Your task to perform on an android device: add a contact in the contacts app Image 0: 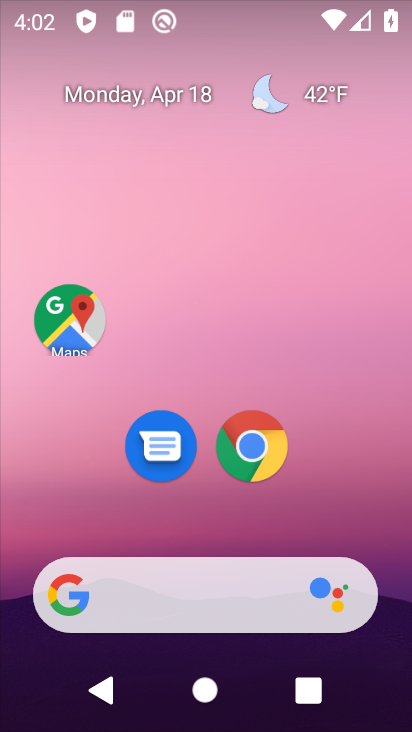
Step 0: drag from (348, 541) to (287, 107)
Your task to perform on an android device: add a contact in the contacts app Image 1: 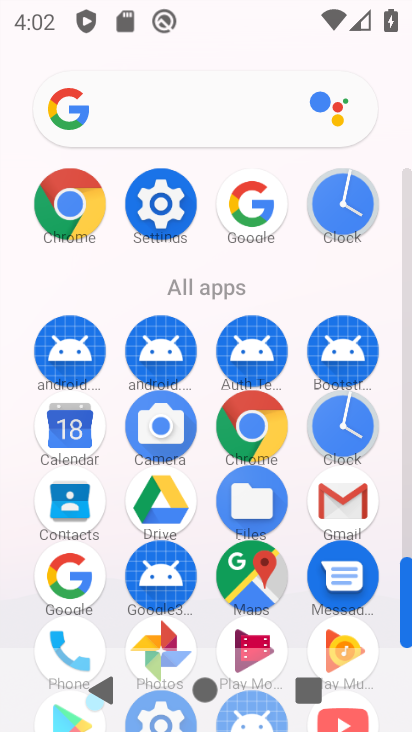
Step 1: click (57, 516)
Your task to perform on an android device: add a contact in the contacts app Image 2: 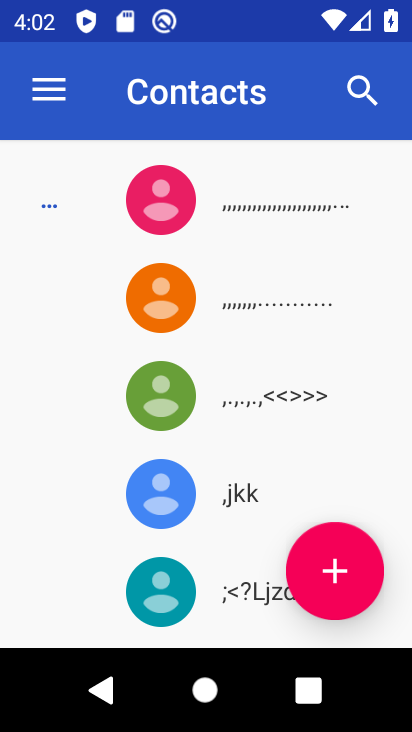
Step 2: click (322, 582)
Your task to perform on an android device: add a contact in the contacts app Image 3: 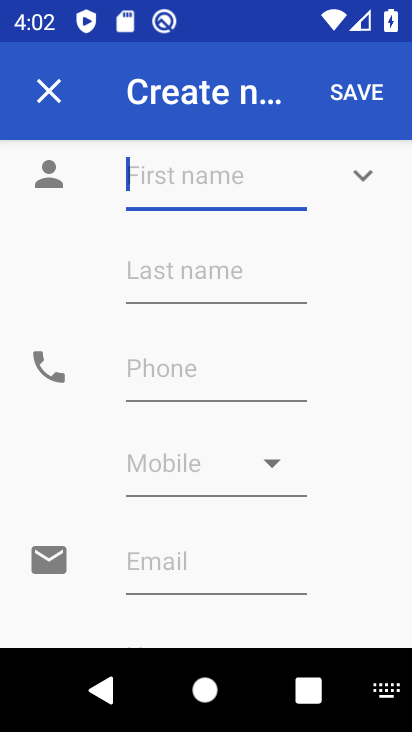
Step 3: type "zc"
Your task to perform on an android device: add a contact in the contacts app Image 4: 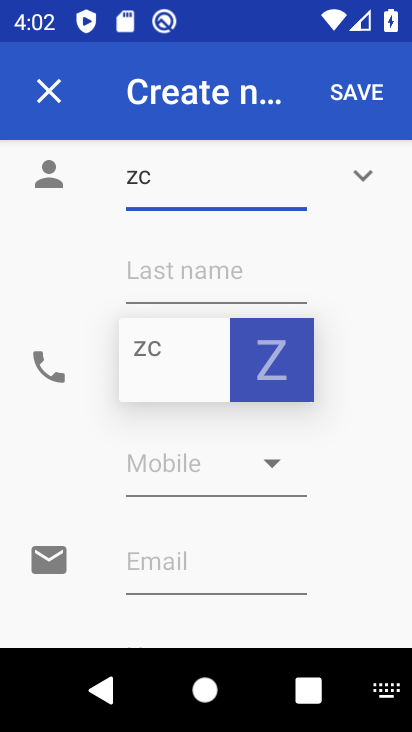
Step 4: type "h"
Your task to perform on an android device: add a contact in the contacts app Image 5: 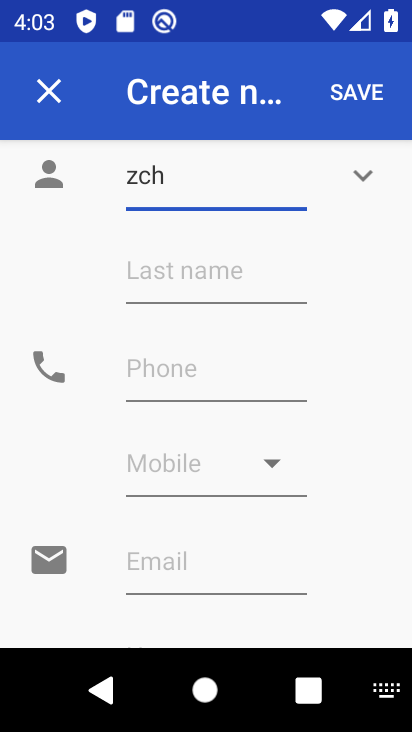
Step 5: click (362, 94)
Your task to perform on an android device: add a contact in the contacts app Image 6: 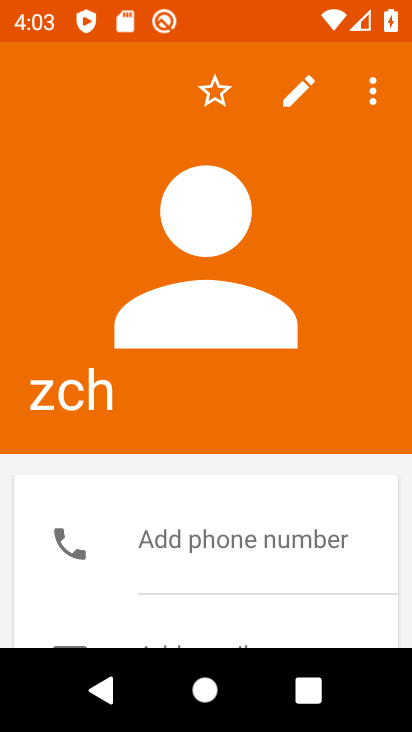
Step 6: task complete